Your task to perform on an android device: Go to wifi settings Image 0: 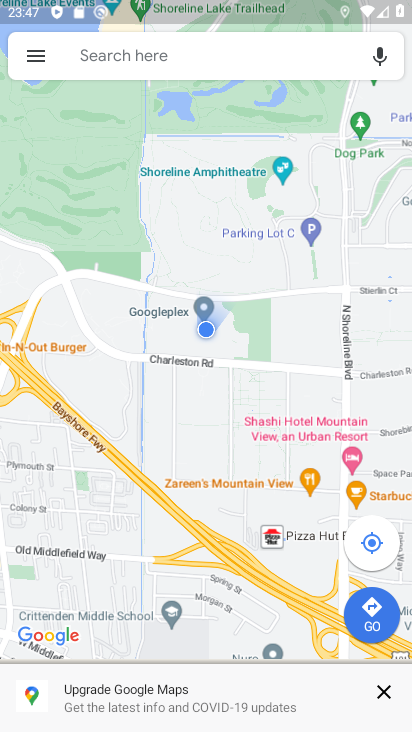
Step 0: press home button
Your task to perform on an android device: Go to wifi settings Image 1: 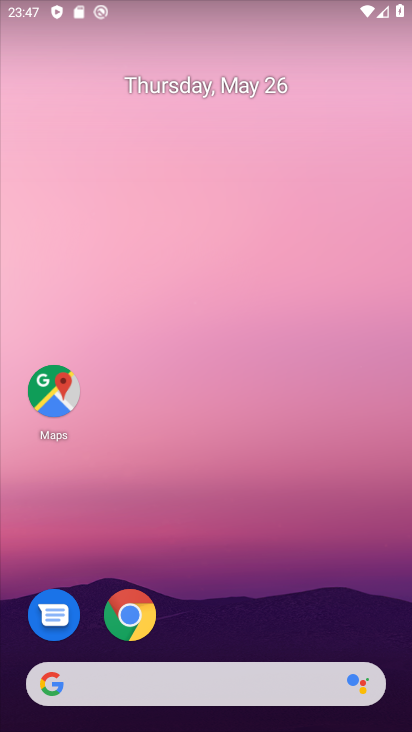
Step 1: drag from (369, 634) to (199, 163)
Your task to perform on an android device: Go to wifi settings Image 2: 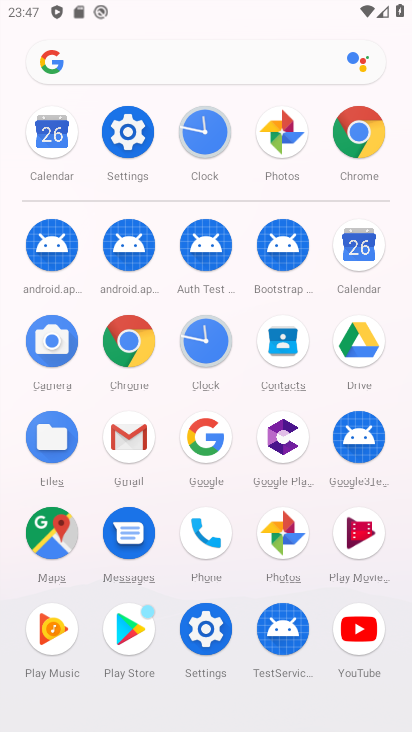
Step 2: drag from (267, 460) to (252, 596)
Your task to perform on an android device: Go to wifi settings Image 3: 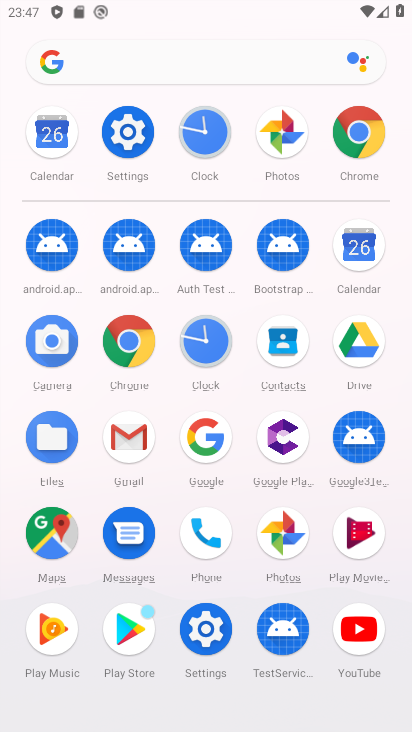
Step 3: drag from (114, 2) to (131, 668)
Your task to perform on an android device: Go to wifi settings Image 4: 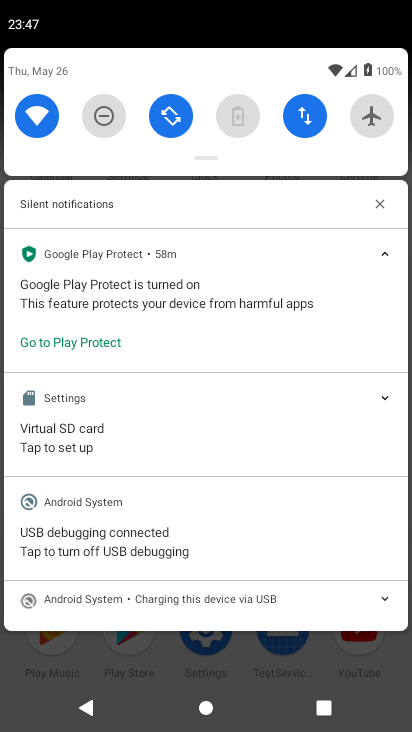
Step 4: click (20, 121)
Your task to perform on an android device: Go to wifi settings Image 5: 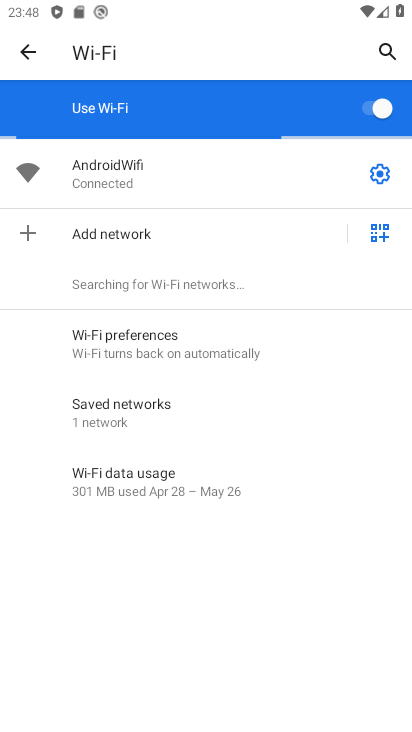
Step 5: task complete